Your task to perform on an android device: change the clock display to analog Image 0: 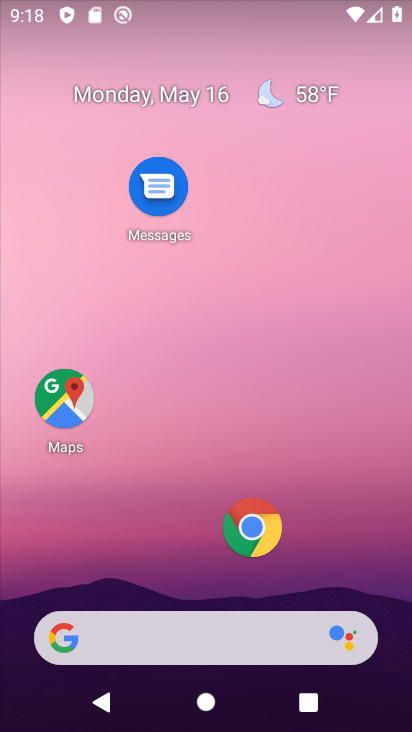
Step 0: drag from (178, 575) to (181, 97)
Your task to perform on an android device: change the clock display to analog Image 1: 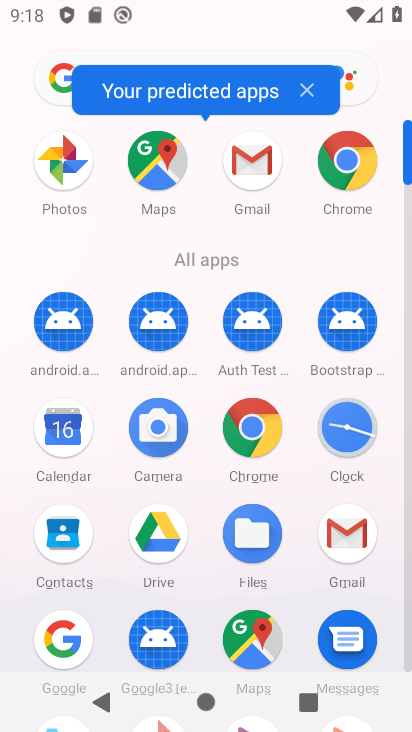
Step 1: click (351, 440)
Your task to perform on an android device: change the clock display to analog Image 2: 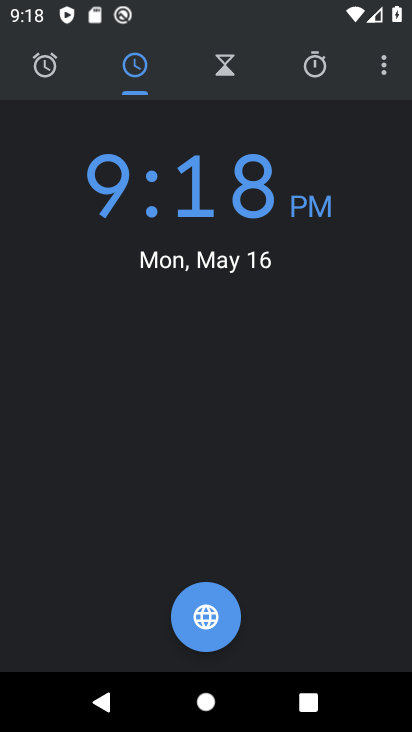
Step 2: click (369, 65)
Your task to perform on an android device: change the clock display to analog Image 3: 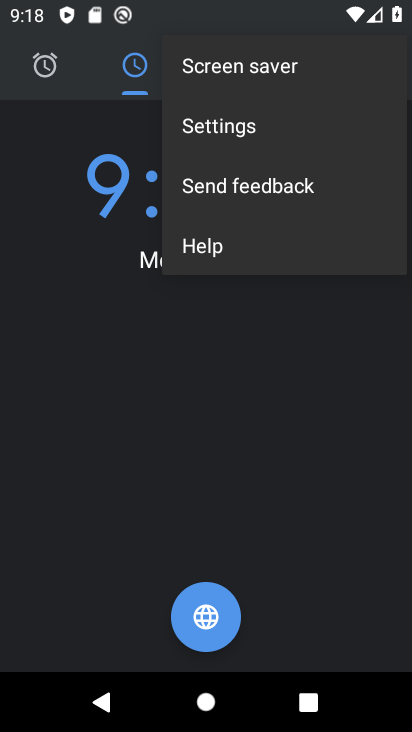
Step 3: click (271, 138)
Your task to perform on an android device: change the clock display to analog Image 4: 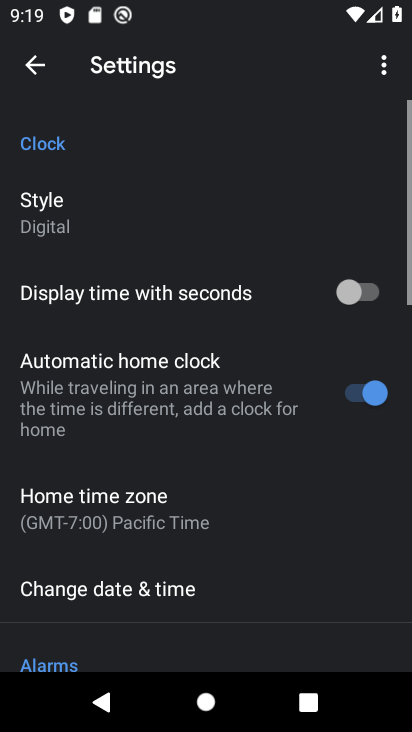
Step 4: drag from (178, 550) to (252, 498)
Your task to perform on an android device: change the clock display to analog Image 5: 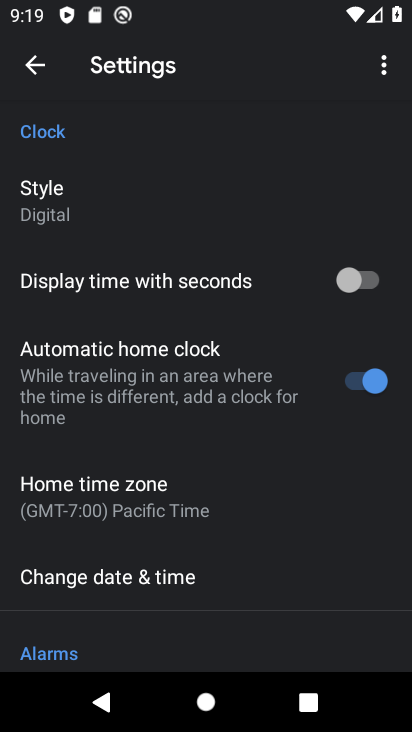
Step 5: click (95, 204)
Your task to perform on an android device: change the clock display to analog Image 6: 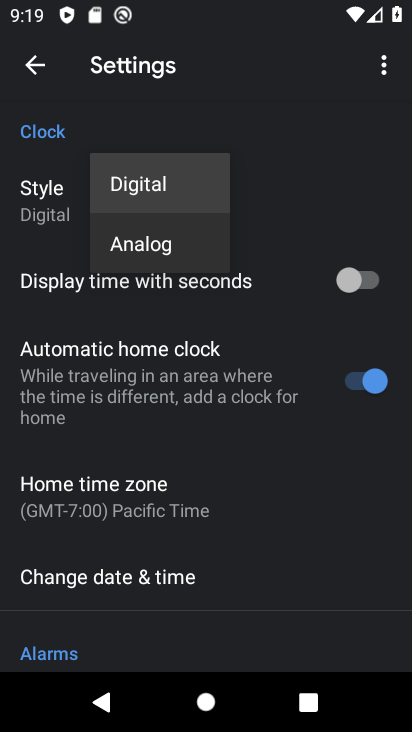
Step 6: click (153, 251)
Your task to perform on an android device: change the clock display to analog Image 7: 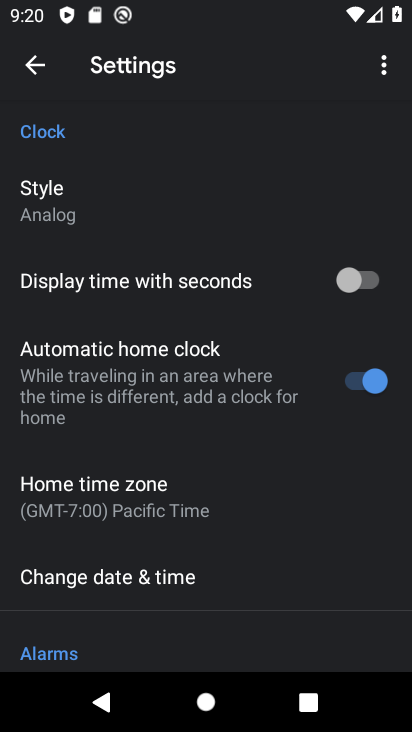
Step 7: task complete